Your task to perform on an android device: What's on my calendar tomorrow? Image 0: 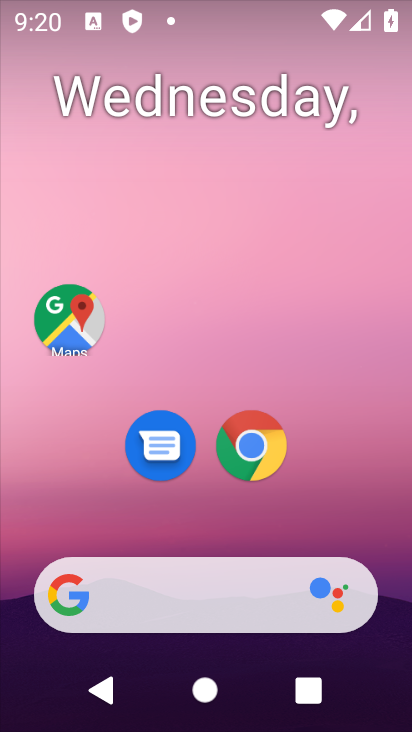
Step 0: click (362, 24)
Your task to perform on an android device: What's on my calendar tomorrow? Image 1: 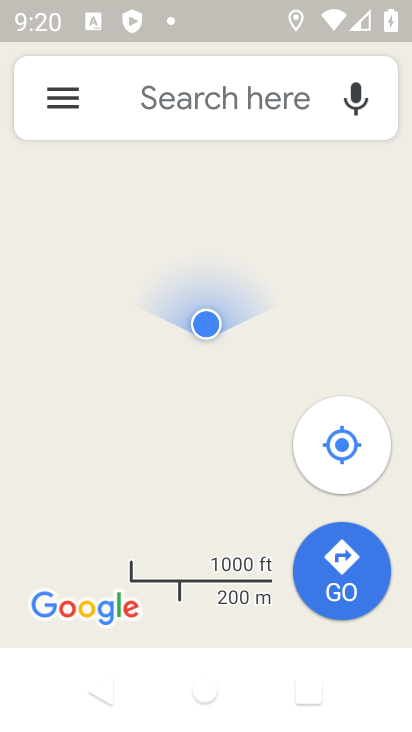
Step 1: press home button
Your task to perform on an android device: What's on my calendar tomorrow? Image 2: 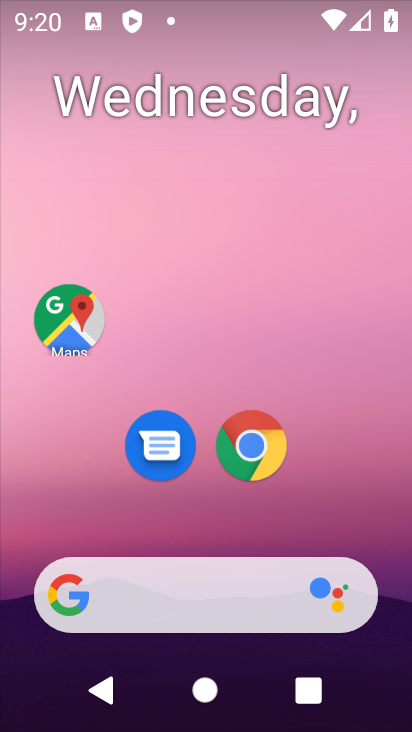
Step 2: drag from (348, 412) to (318, 15)
Your task to perform on an android device: What's on my calendar tomorrow? Image 3: 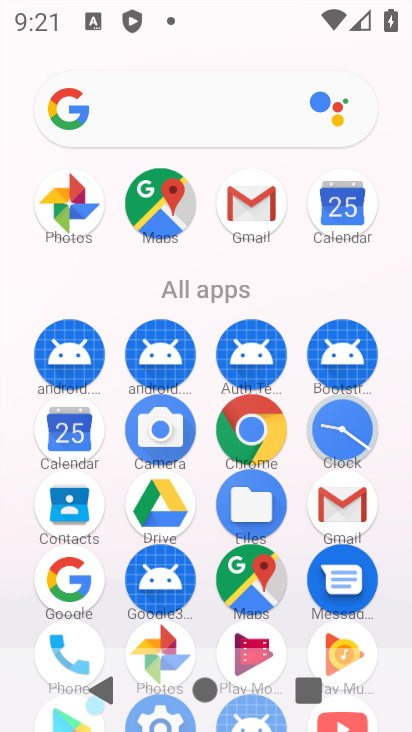
Step 3: click (75, 441)
Your task to perform on an android device: What's on my calendar tomorrow? Image 4: 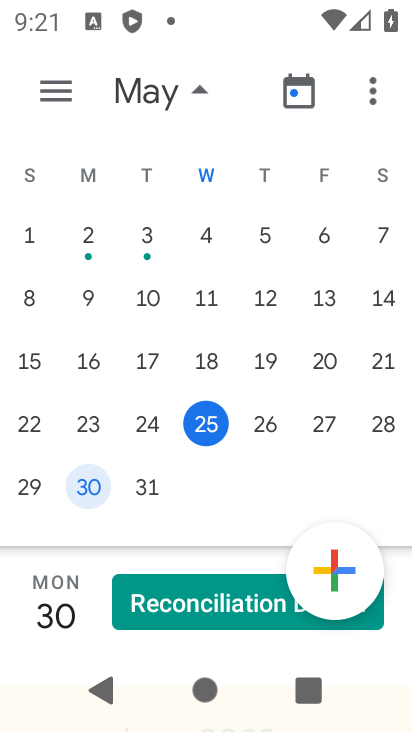
Step 4: click (275, 435)
Your task to perform on an android device: What's on my calendar tomorrow? Image 5: 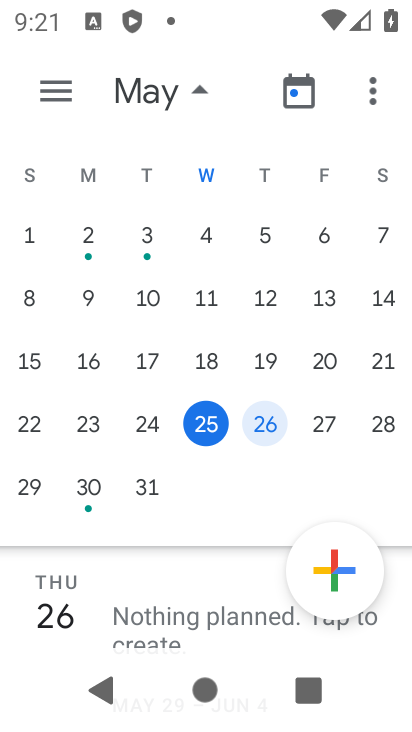
Step 5: task complete